Your task to perform on an android device: What's the weather today? Image 0: 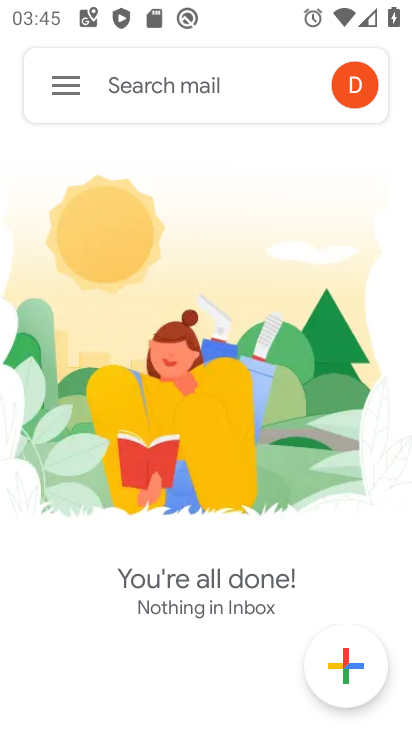
Step 0: press home button
Your task to perform on an android device: What's the weather today? Image 1: 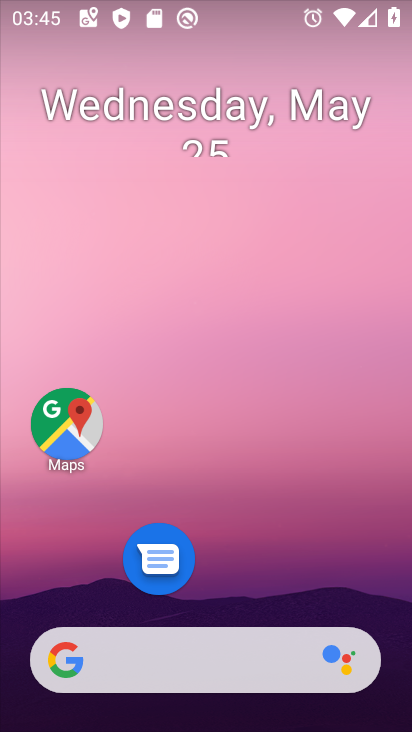
Step 1: drag from (16, 305) to (410, 321)
Your task to perform on an android device: What's the weather today? Image 2: 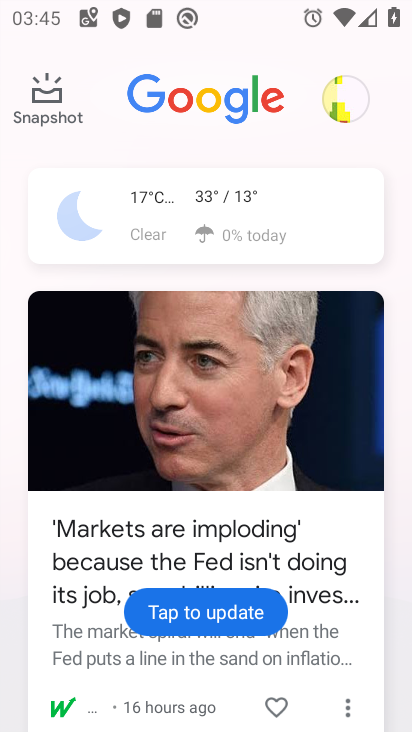
Step 2: click (215, 208)
Your task to perform on an android device: What's the weather today? Image 3: 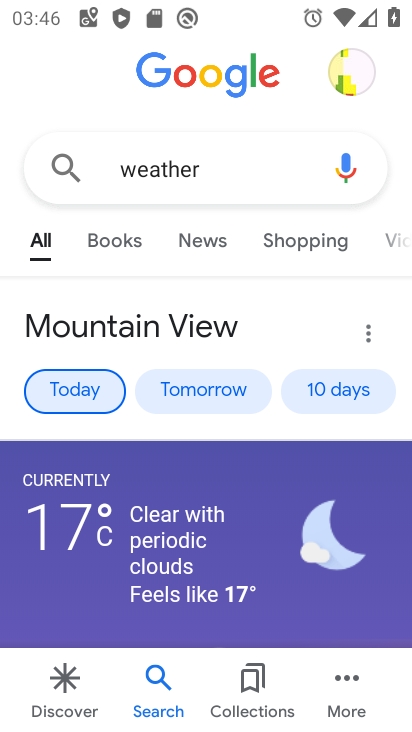
Step 3: task complete